Your task to perform on an android device: see sites visited before in the chrome app Image 0: 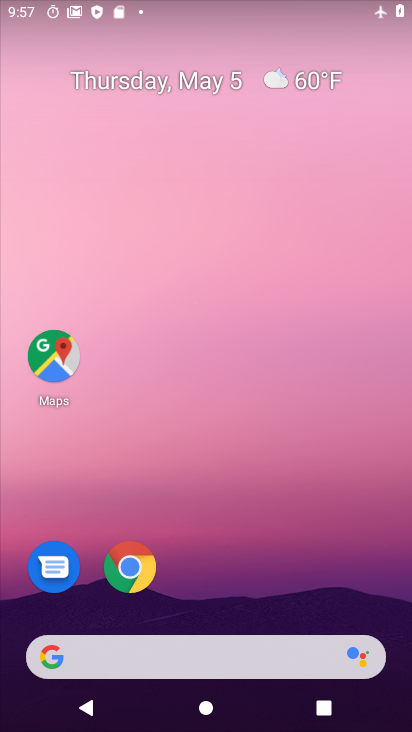
Step 0: drag from (348, 273) to (322, 70)
Your task to perform on an android device: see sites visited before in the chrome app Image 1: 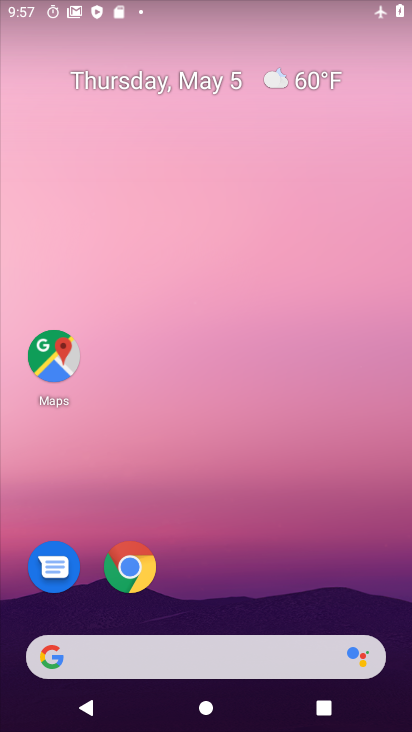
Step 1: drag from (309, 576) to (381, 147)
Your task to perform on an android device: see sites visited before in the chrome app Image 2: 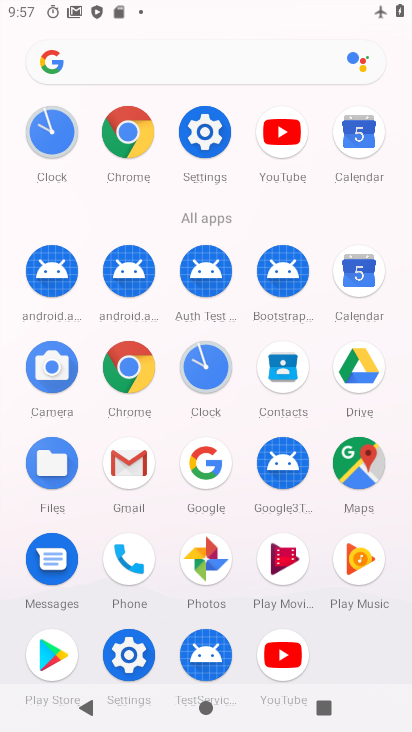
Step 2: click (135, 133)
Your task to perform on an android device: see sites visited before in the chrome app Image 3: 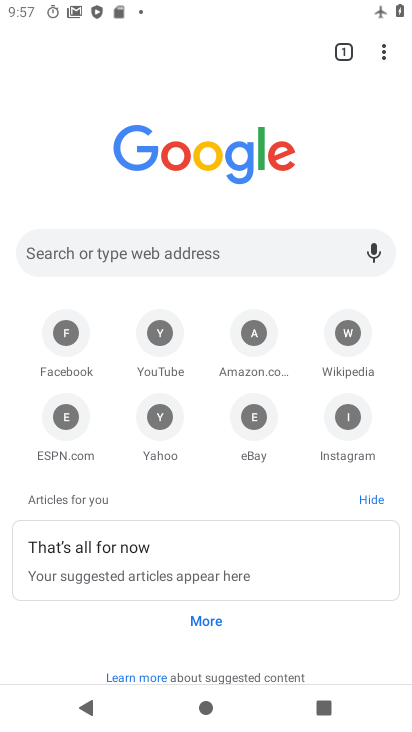
Step 3: task complete